Your task to perform on an android device: turn on location history Image 0: 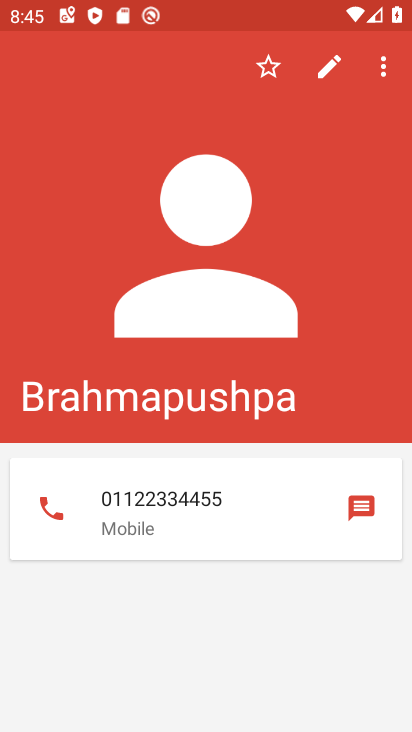
Step 0: press home button
Your task to perform on an android device: turn on location history Image 1: 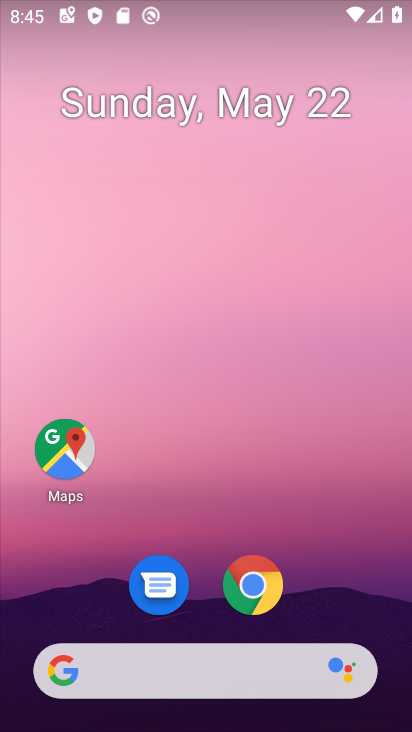
Step 1: drag from (251, 496) to (233, 10)
Your task to perform on an android device: turn on location history Image 2: 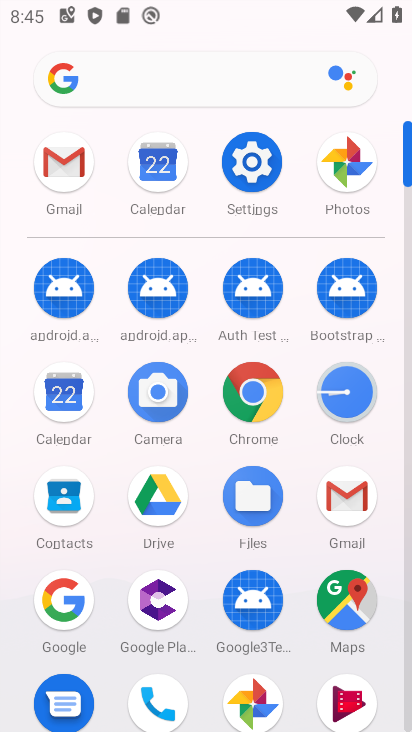
Step 2: click (257, 161)
Your task to perform on an android device: turn on location history Image 3: 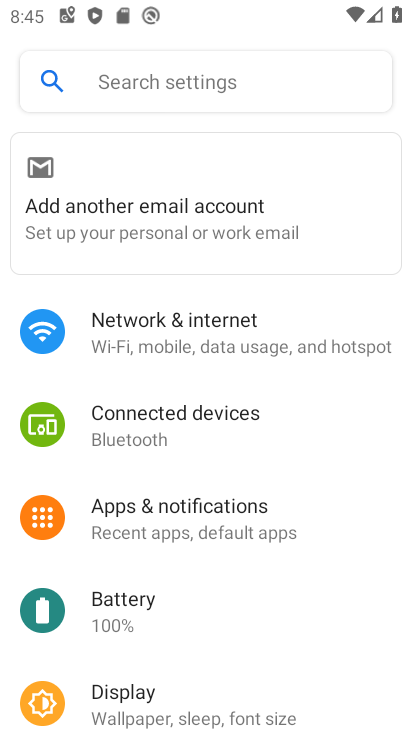
Step 3: drag from (235, 592) to (216, 83)
Your task to perform on an android device: turn on location history Image 4: 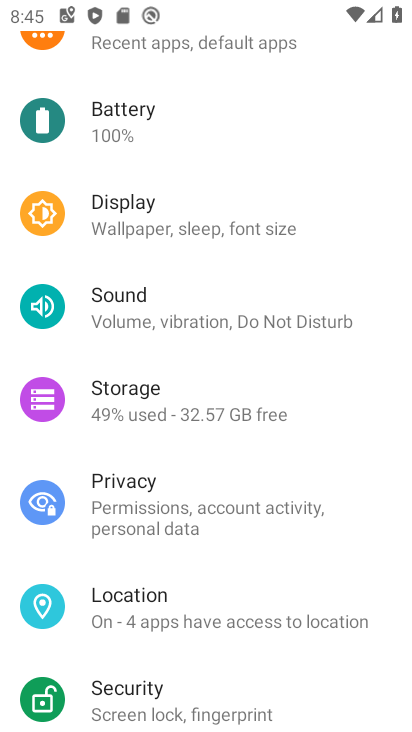
Step 4: click (268, 612)
Your task to perform on an android device: turn on location history Image 5: 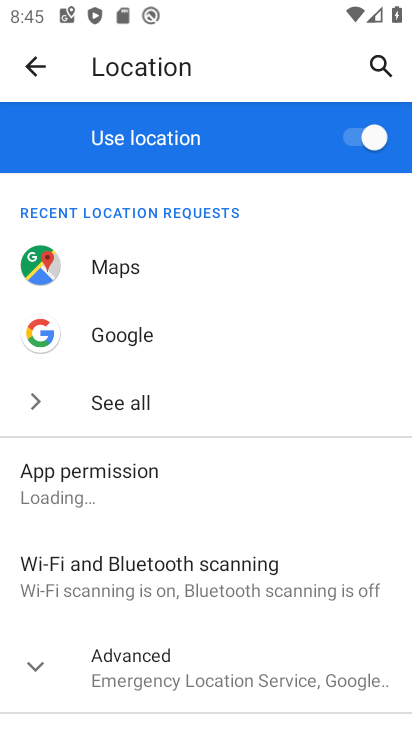
Step 5: drag from (257, 497) to (240, 186)
Your task to perform on an android device: turn on location history Image 6: 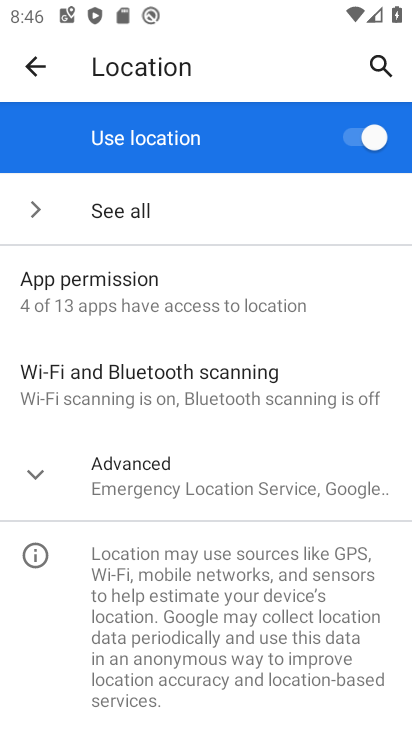
Step 6: click (33, 468)
Your task to perform on an android device: turn on location history Image 7: 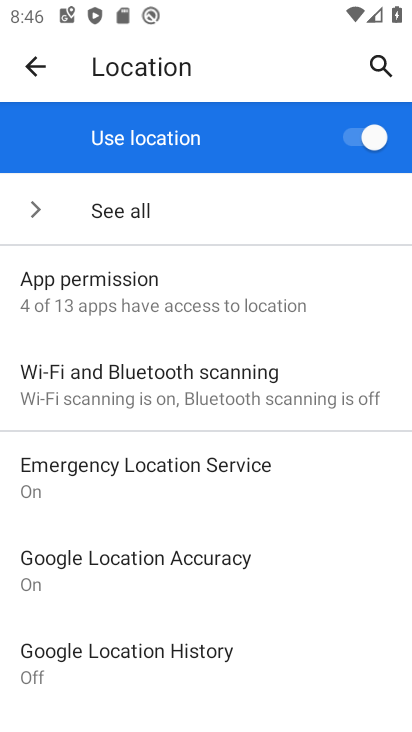
Step 7: click (219, 659)
Your task to perform on an android device: turn on location history Image 8: 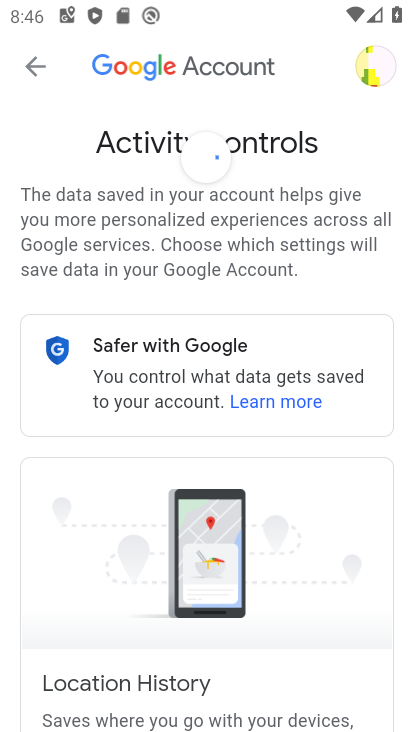
Step 8: task complete